Your task to perform on an android device: See recent photos Image 0: 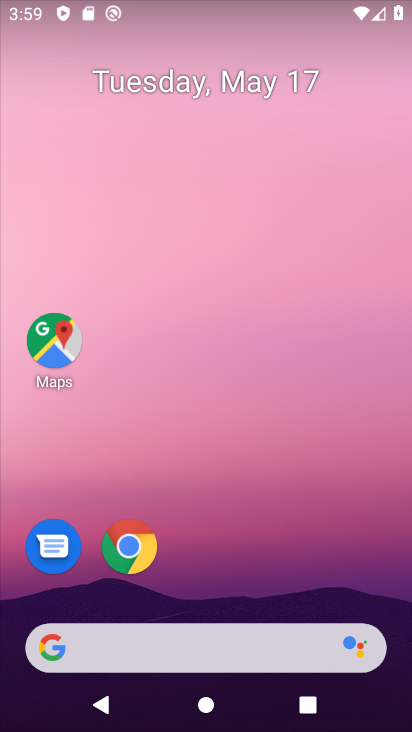
Step 0: click (211, 610)
Your task to perform on an android device: See recent photos Image 1: 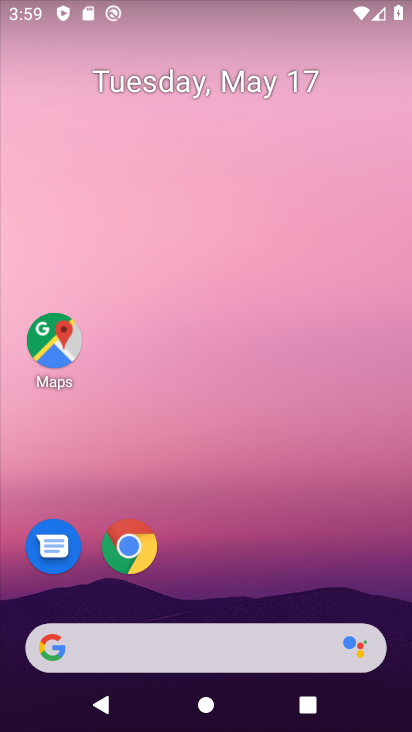
Step 1: drag from (201, 570) to (217, 49)
Your task to perform on an android device: See recent photos Image 2: 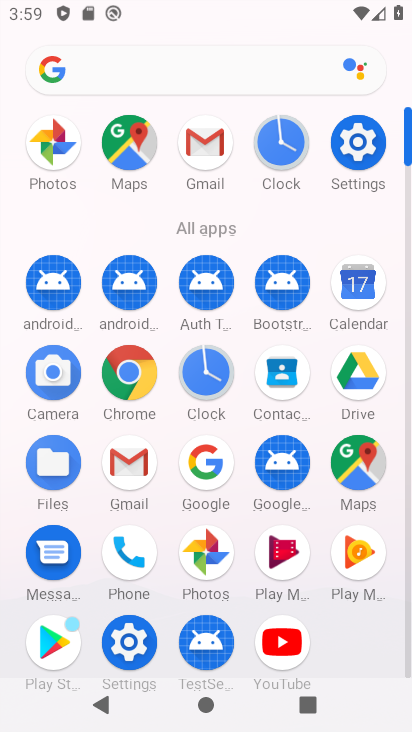
Step 2: click (195, 588)
Your task to perform on an android device: See recent photos Image 3: 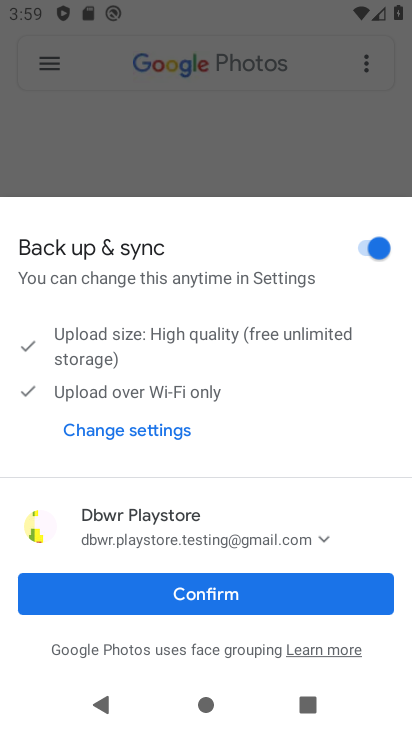
Step 3: click (253, 603)
Your task to perform on an android device: See recent photos Image 4: 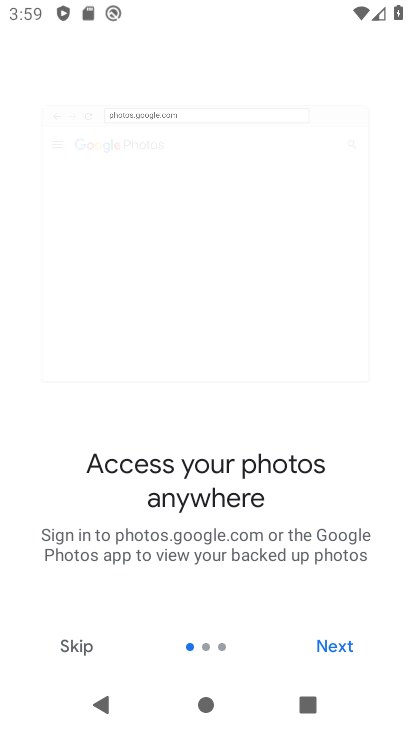
Step 4: click (324, 645)
Your task to perform on an android device: See recent photos Image 5: 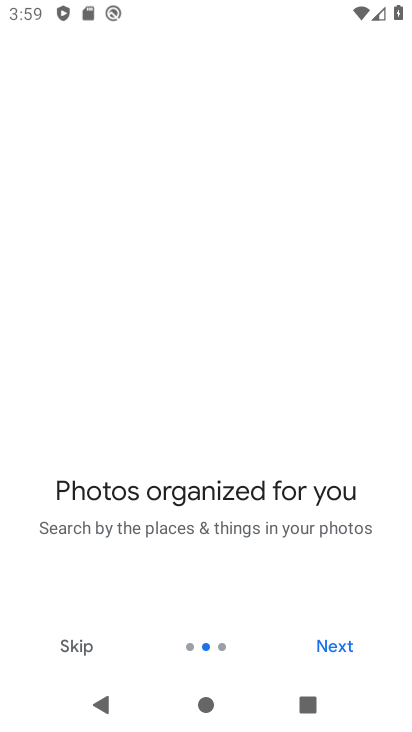
Step 5: click (324, 645)
Your task to perform on an android device: See recent photos Image 6: 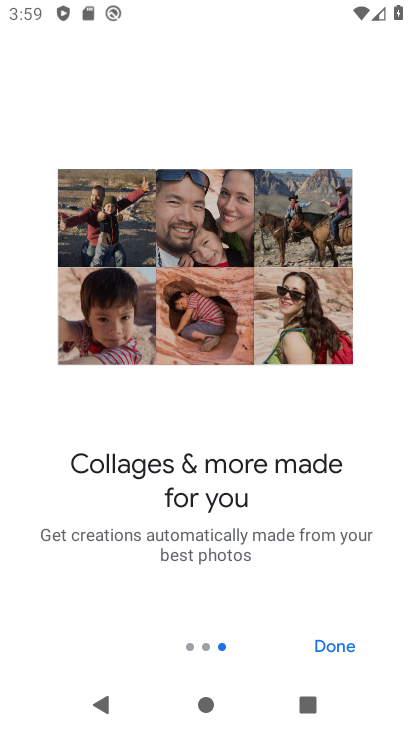
Step 6: click (326, 645)
Your task to perform on an android device: See recent photos Image 7: 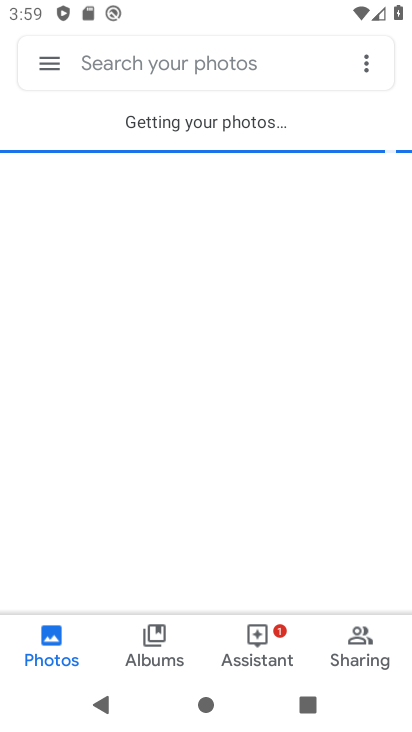
Step 7: click (164, 640)
Your task to perform on an android device: See recent photos Image 8: 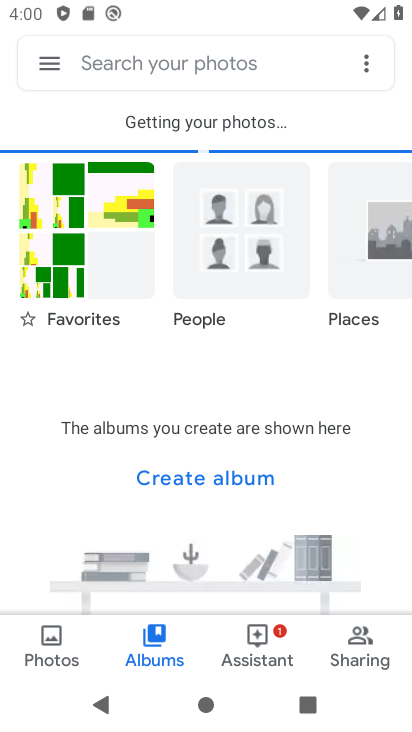
Step 8: click (72, 627)
Your task to perform on an android device: See recent photos Image 9: 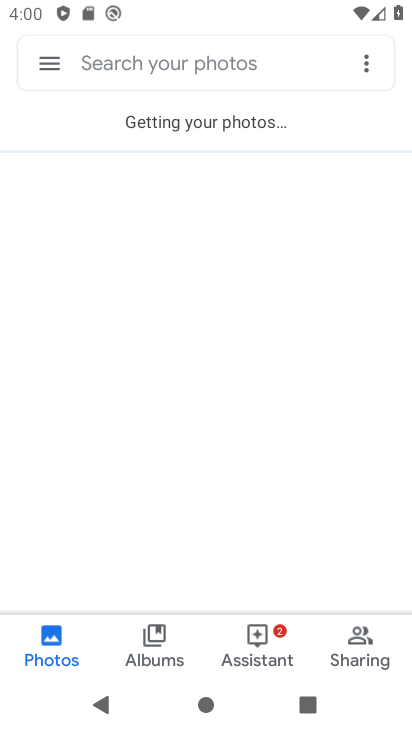
Step 9: task complete